Your task to perform on an android device: Open Youtube and go to "Your channel" Image 0: 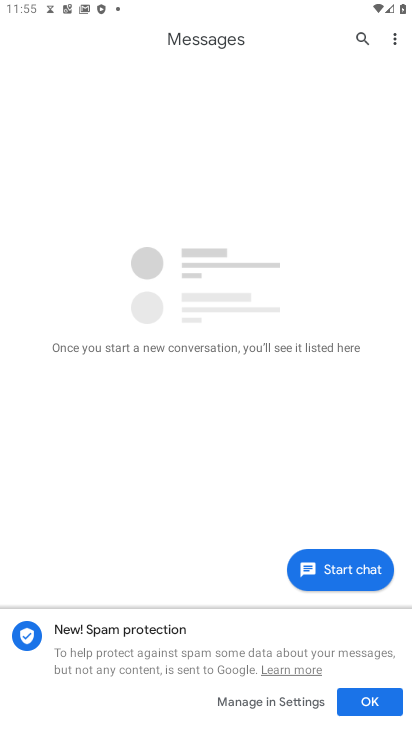
Step 0: press back button
Your task to perform on an android device: Open Youtube and go to "Your channel" Image 1: 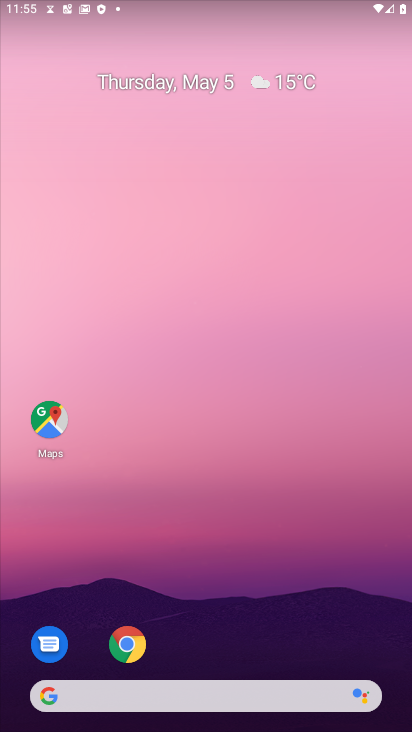
Step 1: drag from (269, 542) to (247, 21)
Your task to perform on an android device: Open Youtube and go to "Your channel" Image 2: 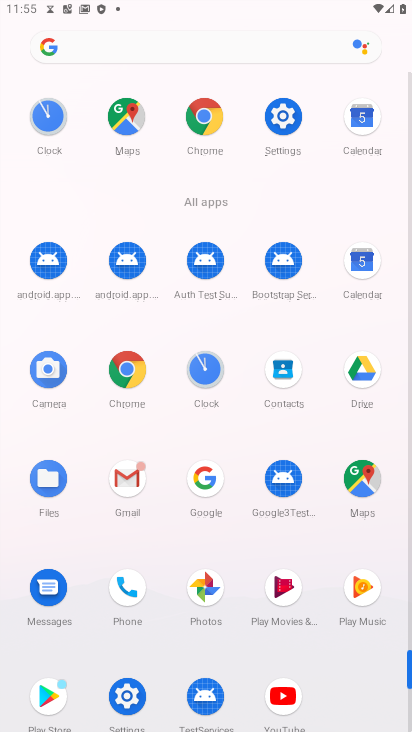
Step 2: drag from (5, 628) to (19, 313)
Your task to perform on an android device: Open Youtube and go to "Your channel" Image 3: 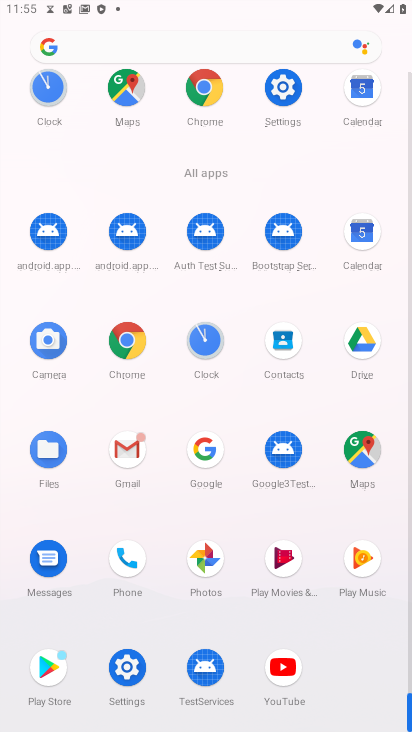
Step 3: click (282, 665)
Your task to perform on an android device: Open Youtube and go to "Your channel" Image 4: 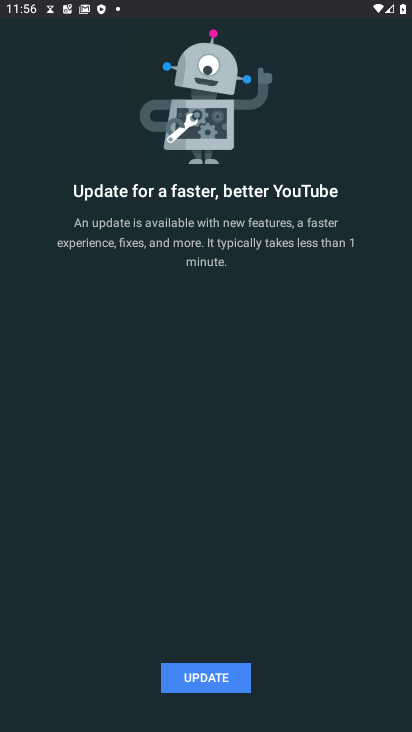
Step 4: click (213, 676)
Your task to perform on an android device: Open Youtube and go to "Your channel" Image 5: 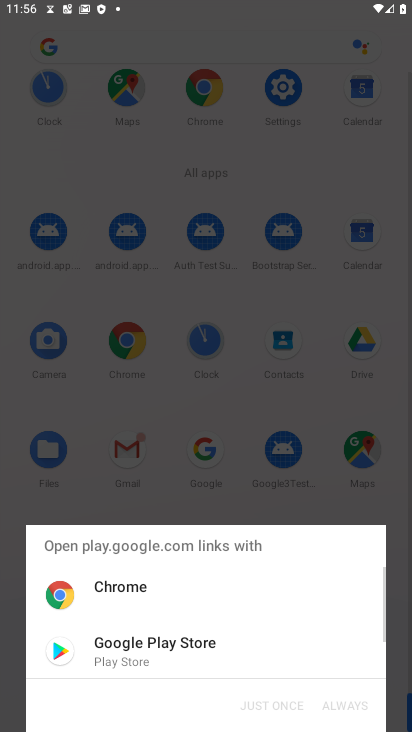
Step 5: click (188, 645)
Your task to perform on an android device: Open Youtube and go to "Your channel" Image 6: 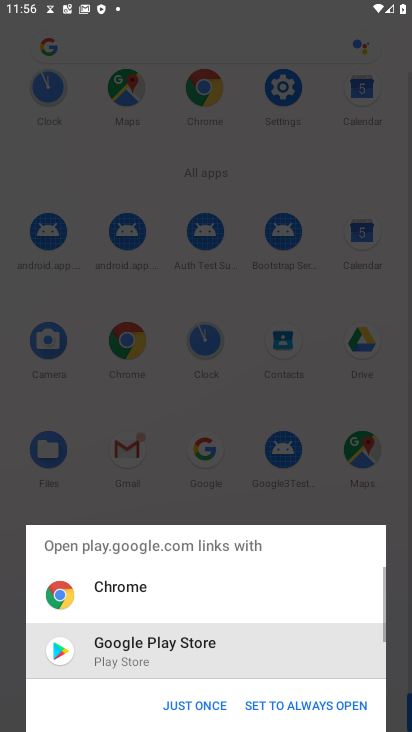
Step 6: click (162, 707)
Your task to perform on an android device: Open Youtube and go to "Your channel" Image 7: 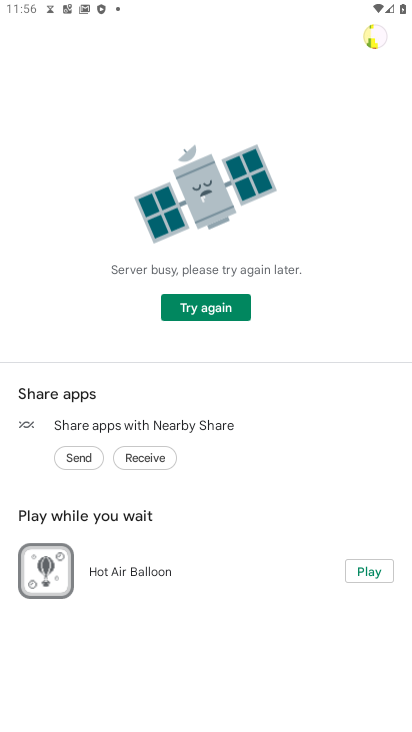
Step 7: click (181, 308)
Your task to perform on an android device: Open Youtube and go to "Your channel" Image 8: 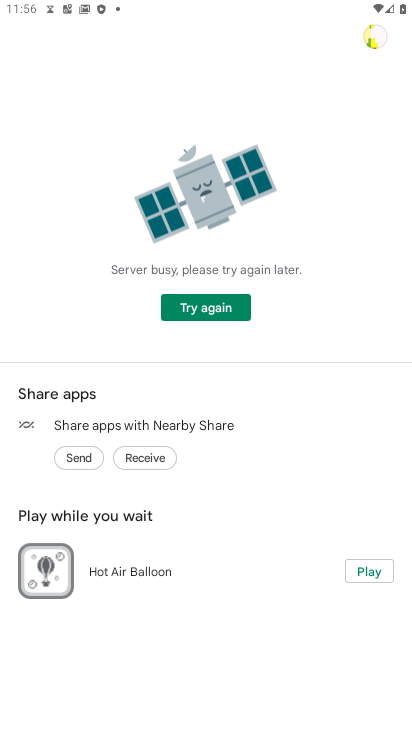
Step 8: click (191, 297)
Your task to perform on an android device: Open Youtube and go to "Your channel" Image 9: 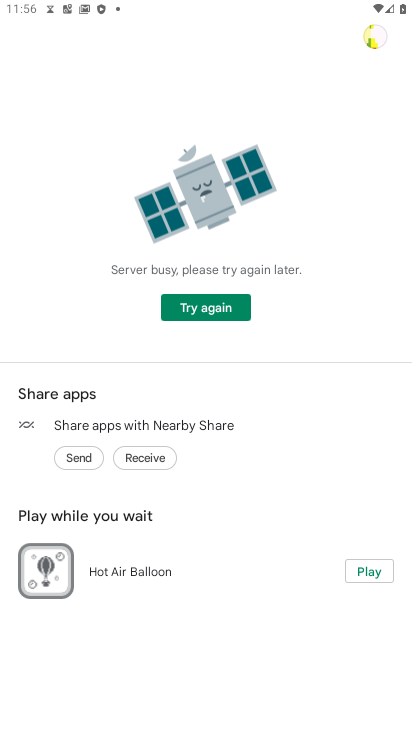
Step 9: click (195, 312)
Your task to perform on an android device: Open Youtube and go to "Your channel" Image 10: 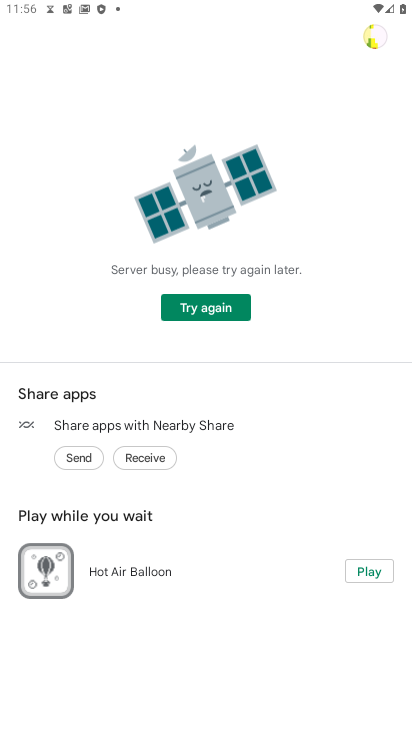
Step 10: task complete